Your task to perform on an android device: turn on location history Image 0: 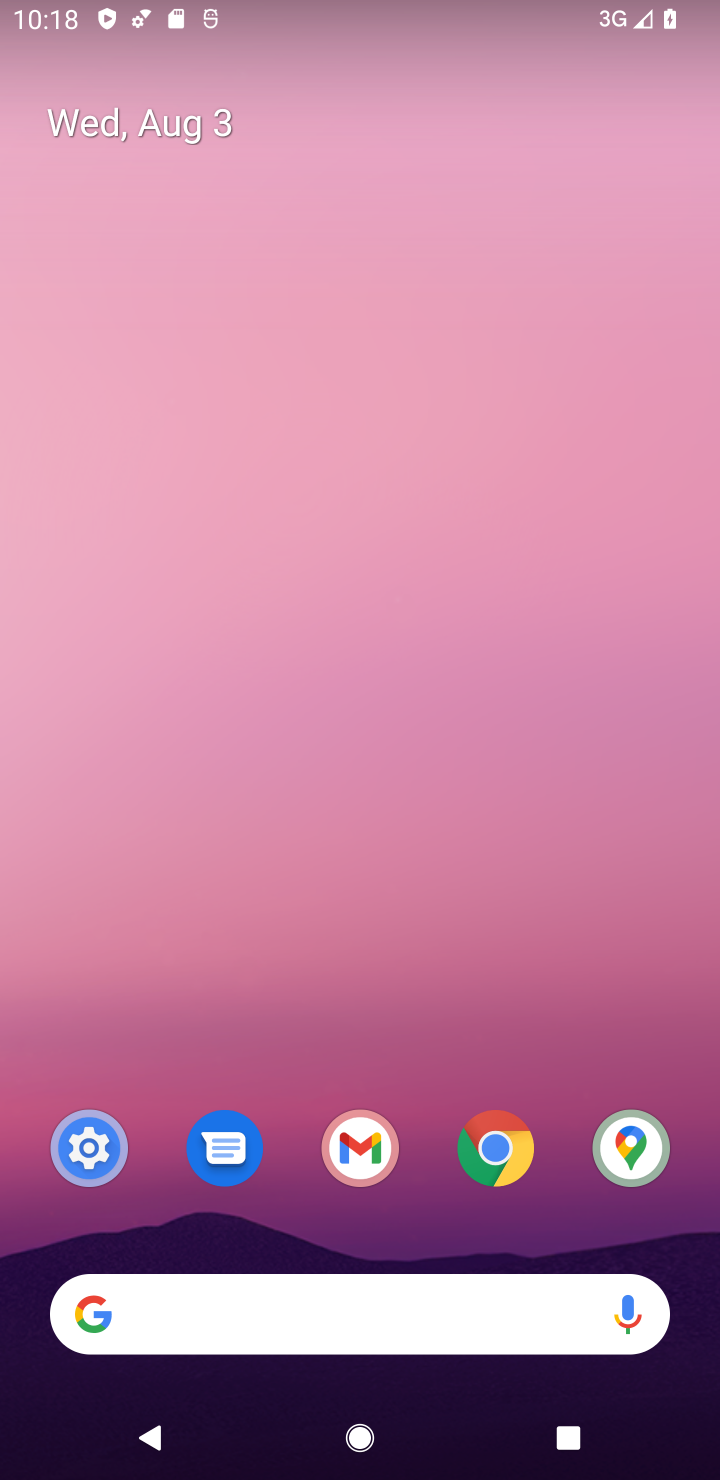
Step 0: drag from (301, 986) to (352, 234)
Your task to perform on an android device: turn on location history Image 1: 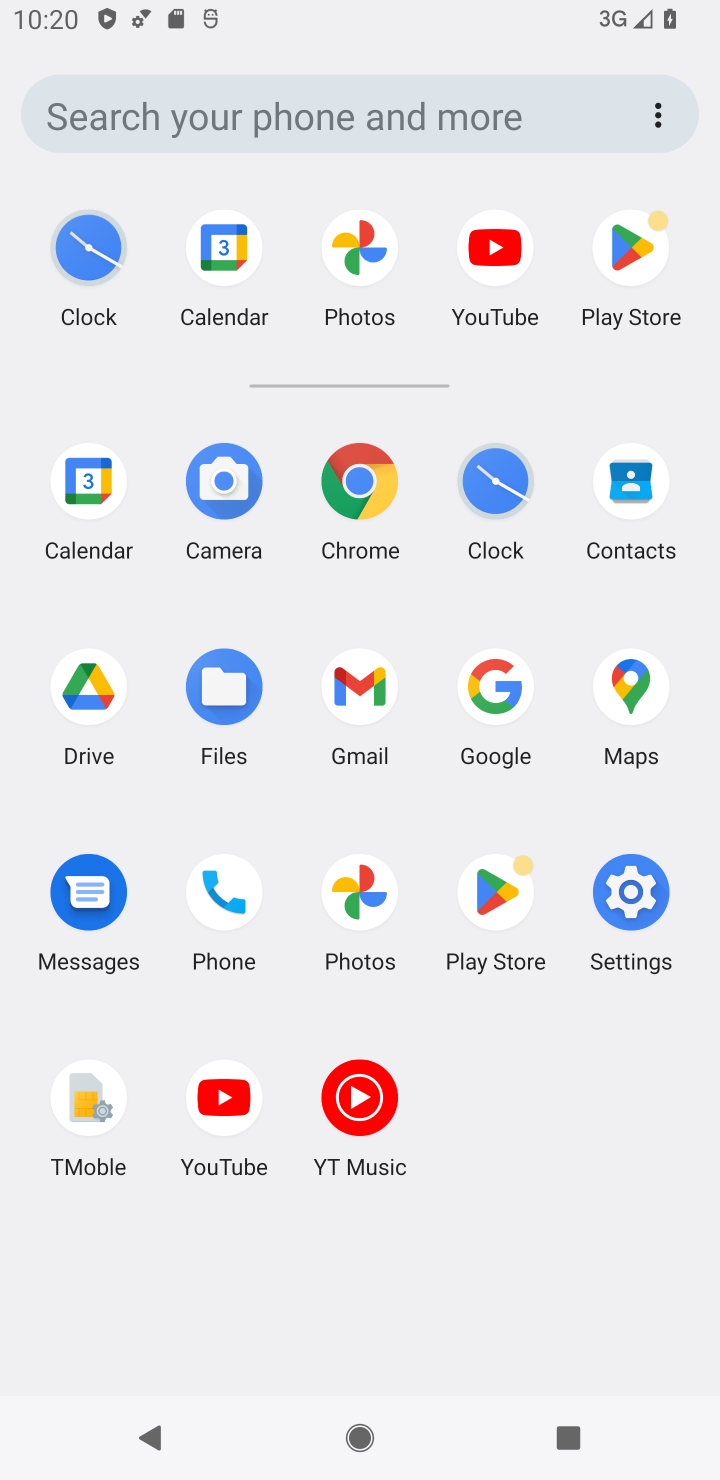
Step 1: click (629, 898)
Your task to perform on an android device: turn on location history Image 2: 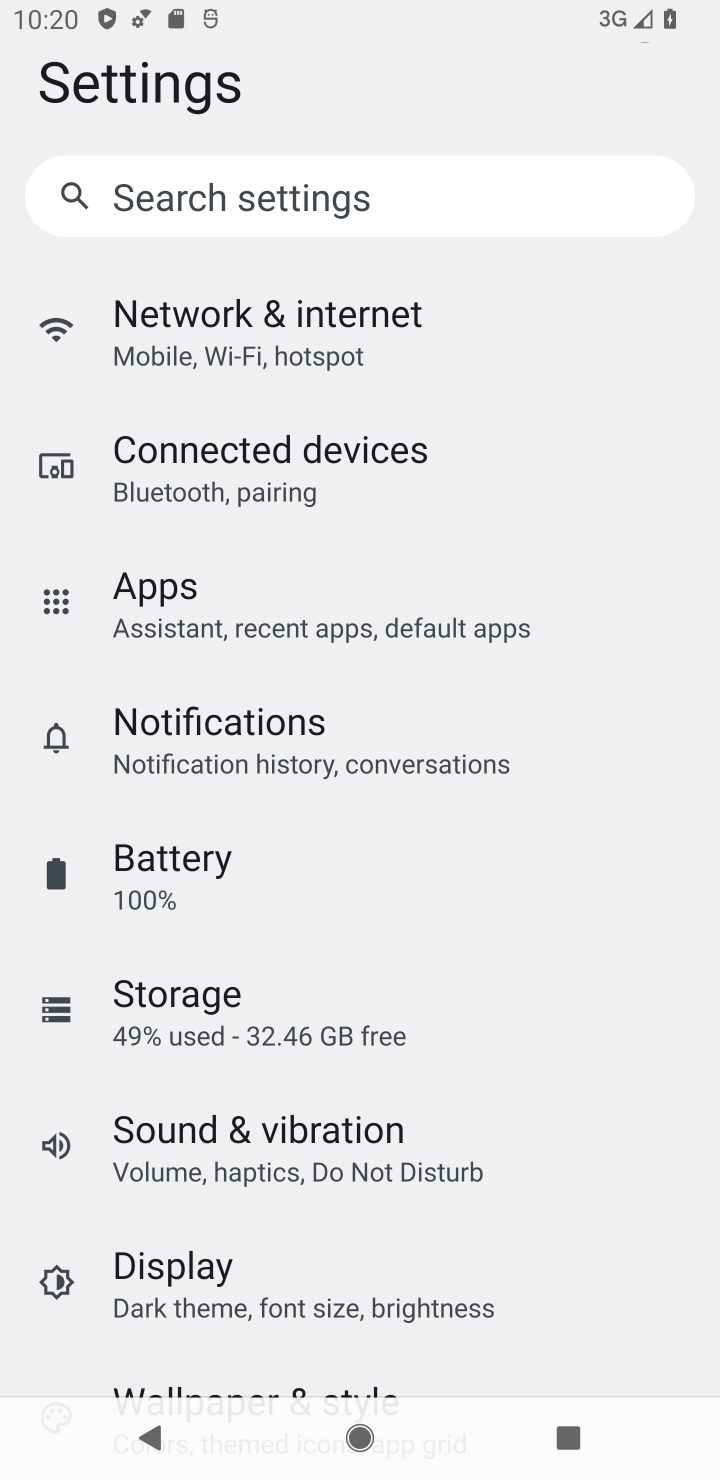
Step 2: task complete